Your task to perform on an android device: toggle airplane mode Image 0: 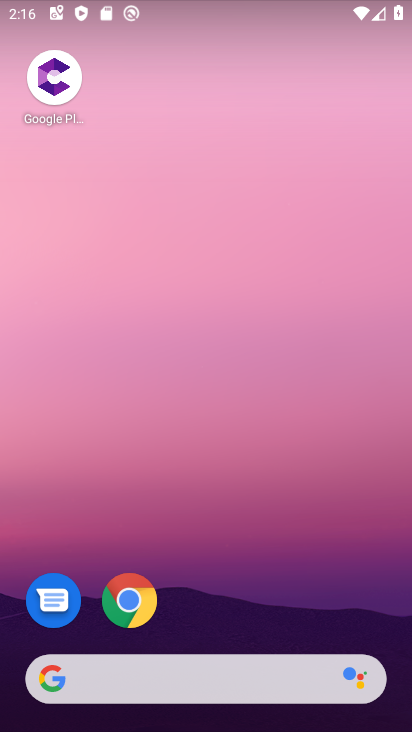
Step 0: drag from (205, 610) to (179, 259)
Your task to perform on an android device: toggle airplane mode Image 1: 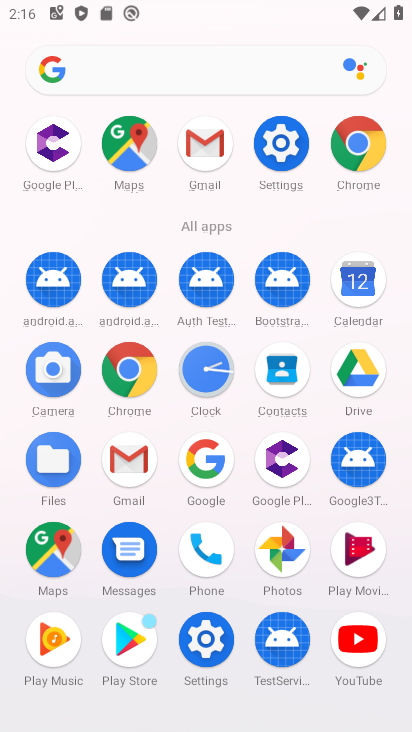
Step 1: click (199, 640)
Your task to perform on an android device: toggle airplane mode Image 2: 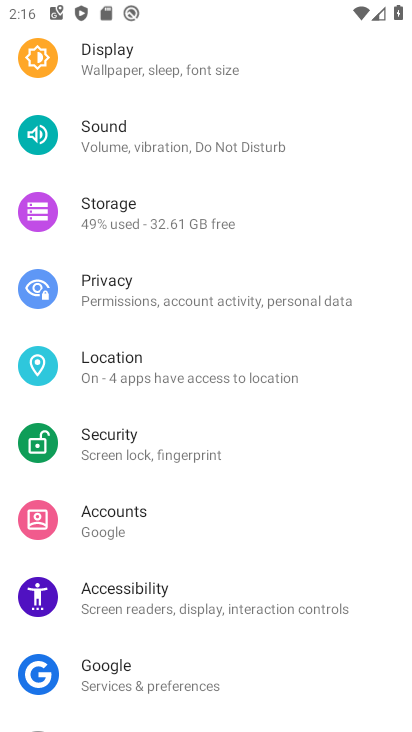
Step 2: drag from (202, 195) to (220, 524)
Your task to perform on an android device: toggle airplane mode Image 3: 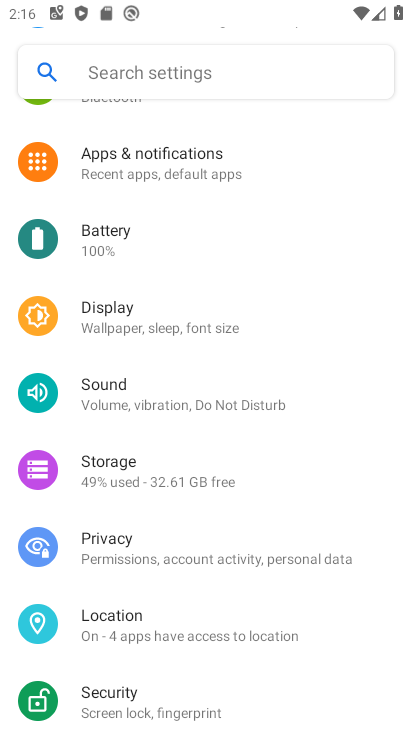
Step 3: drag from (112, 191) to (118, 559)
Your task to perform on an android device: toggle airplane mode Image 4: 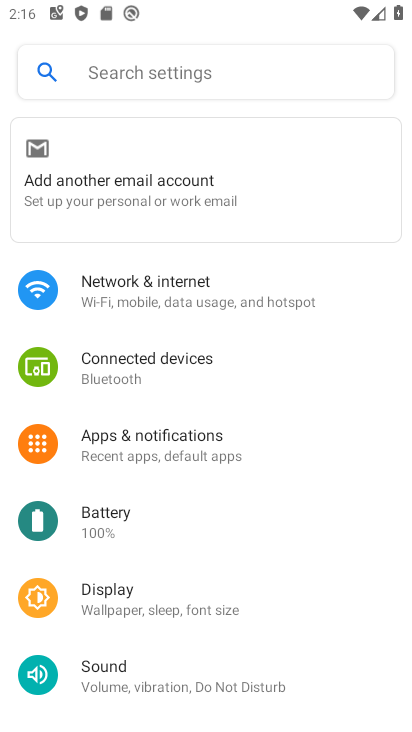
Step 4: click (151, 309)
Your task to perform on an android device: toggle airplane mode Image 5: 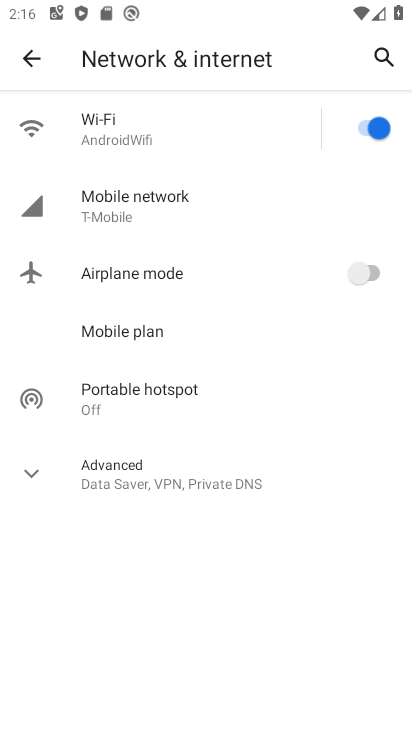
Step 5: click (240, 276)
Your task to perform on an android device: toggle airplane mode Image 6: 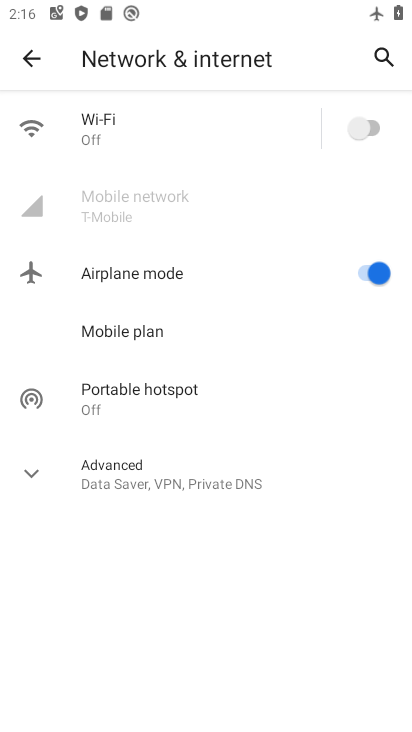
Step 6: task complete